Your task to perform on an android device: turn on airplane mode Image 0: 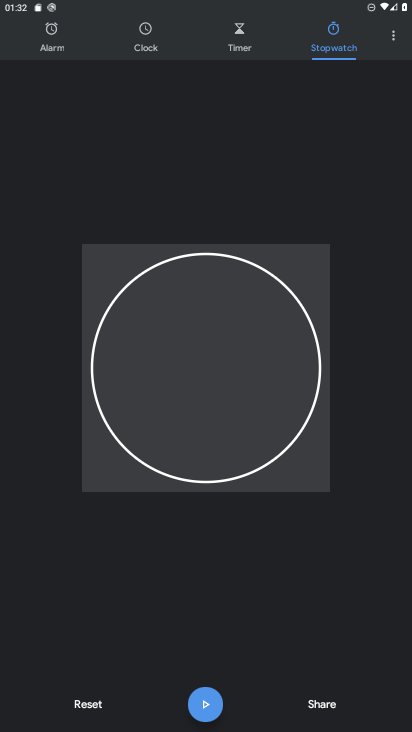
Step 0: press home button
Your task to perform on an android device: turn on airplane mode Image 1: 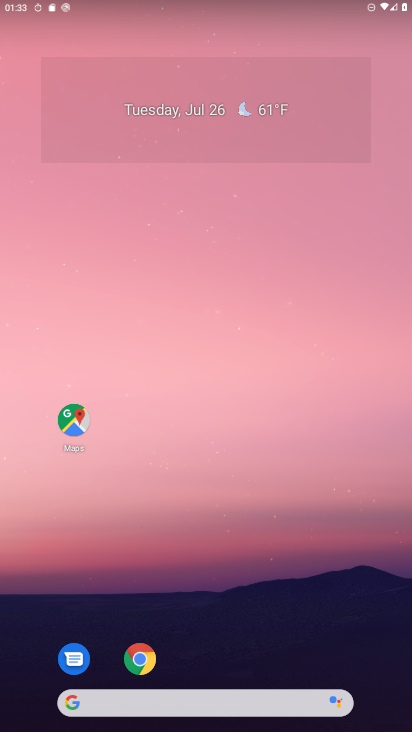
Step 1: drag from (50, 677) to (222, 14)
Your task to perform on an android device: turn on airplane mode Image 2: 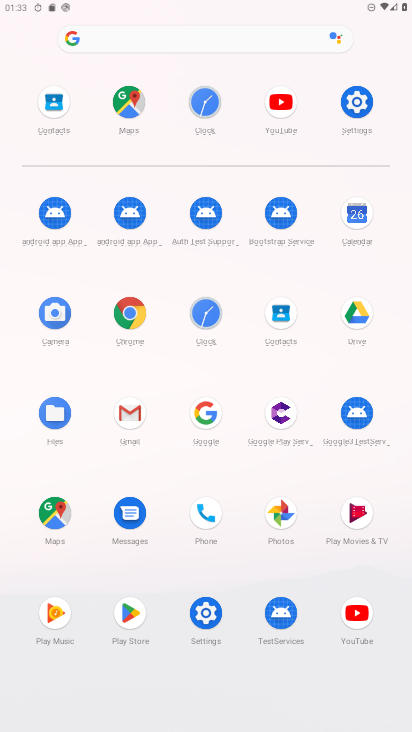
Step 2: click (228, 601)
Your task to perform on an android device: turn on airplane mode Image 3: 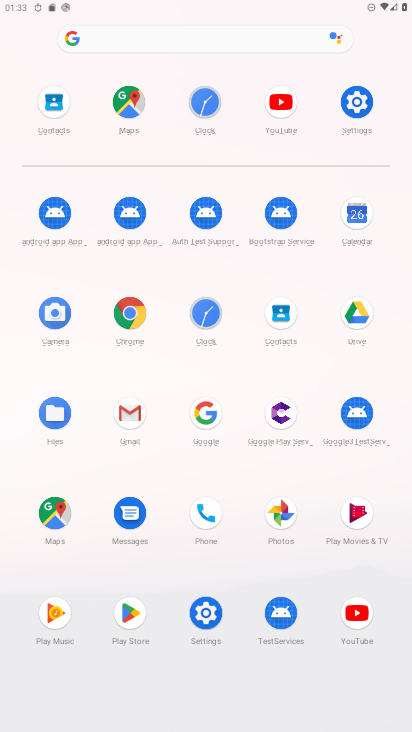
Step 3: click (216, 623)
Your task to perform on an android device: turn on airplane mode Image 4: 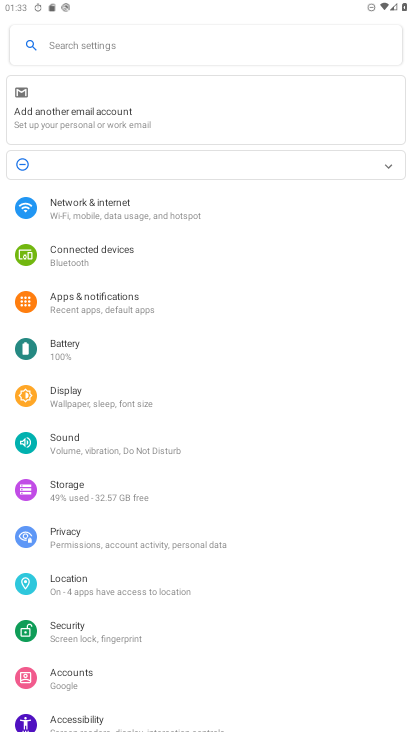
Step 4: click (98, 206)
Your task to perform on an android device: turn on airplane mode Image 5: 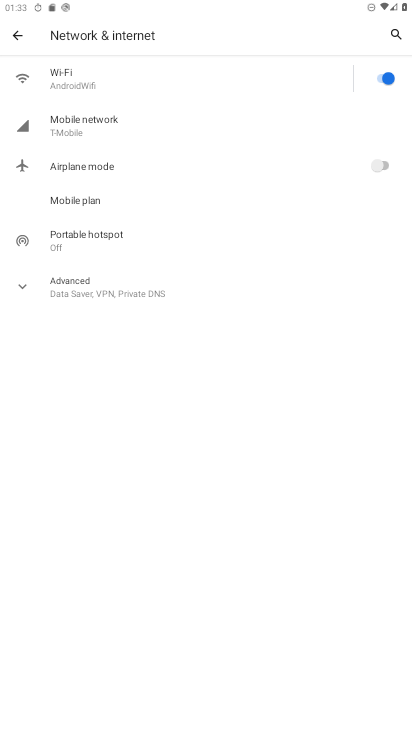
Step 5: click (372, 170)
Your task to perform on an android device: turn on airplane mode Image 6: 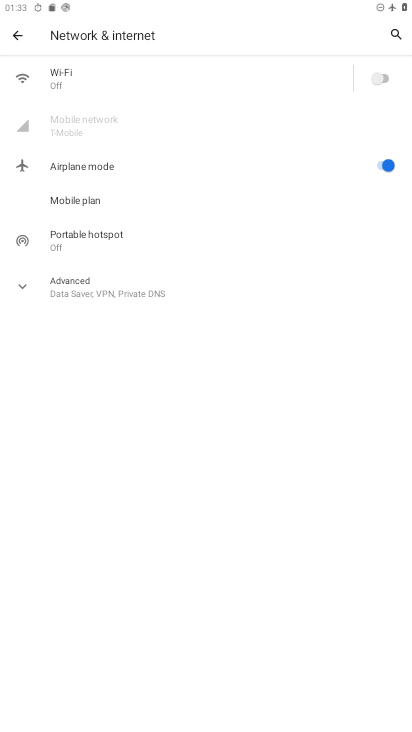
Step 6: task complete